Your task to perform on an android device: Search for flights from Boston to Sydney Image 0: 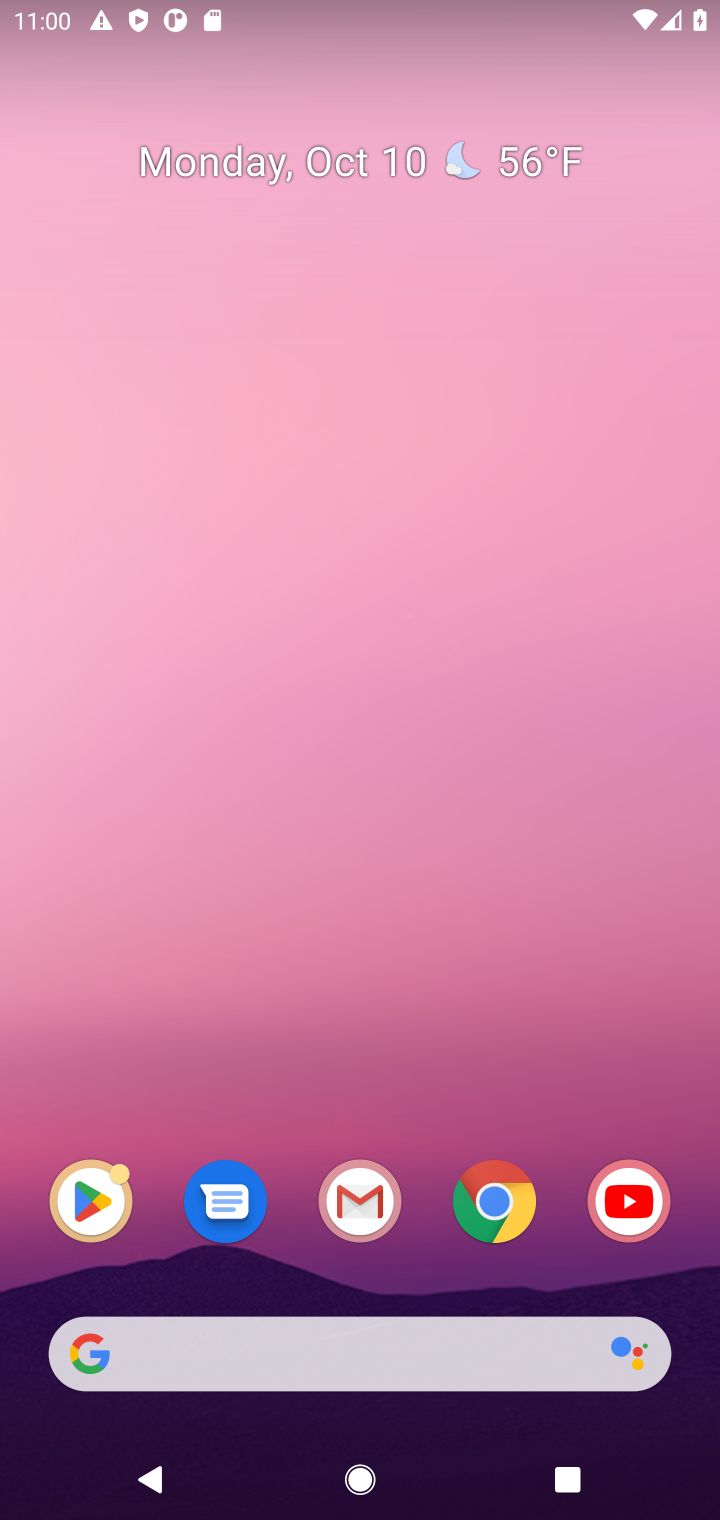
Step 0: click (75, 1343)
Your task to perform on an android device: Search for flights from Boston to Sydney Image 1: 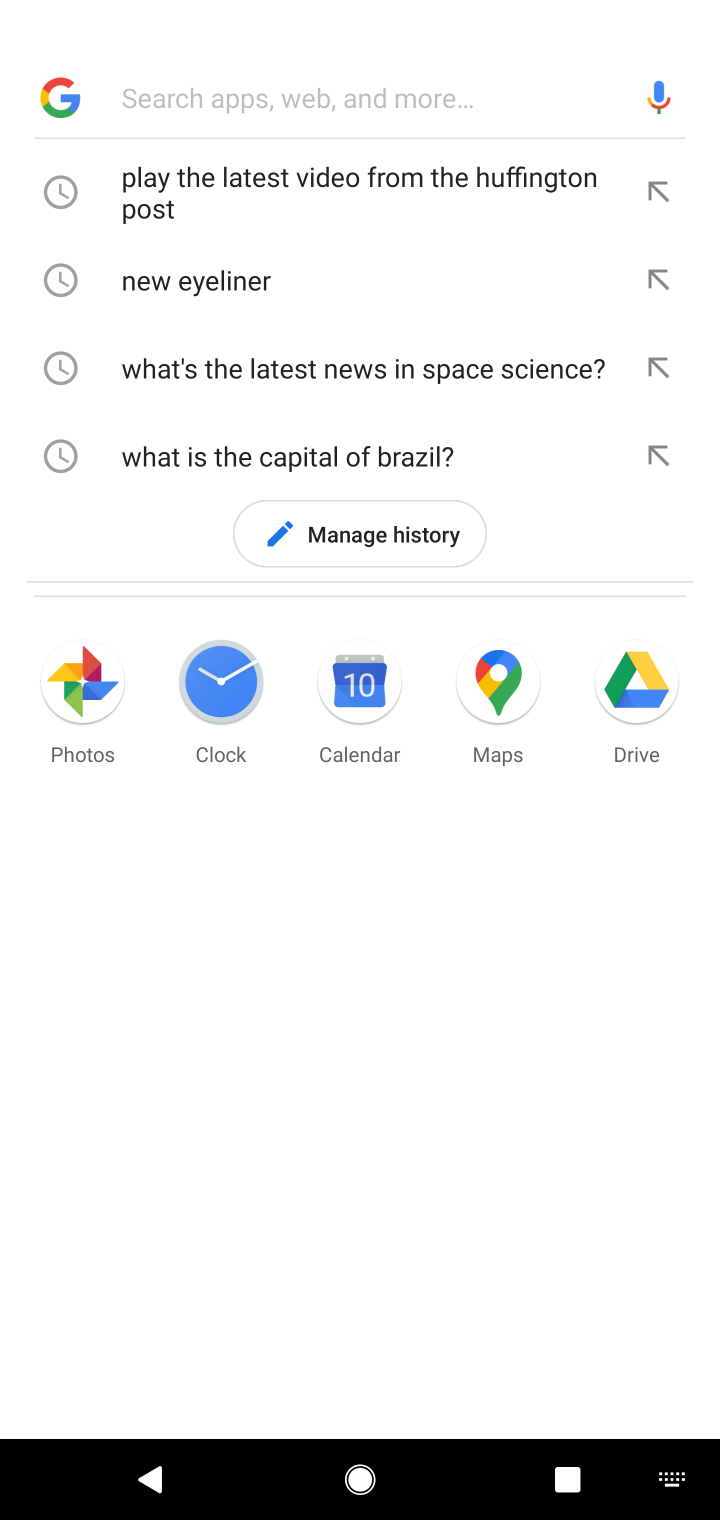
Step 1: click (330, 97)
Your task to perform on an android device: Search for flights from Boston to Sydney Image 2: 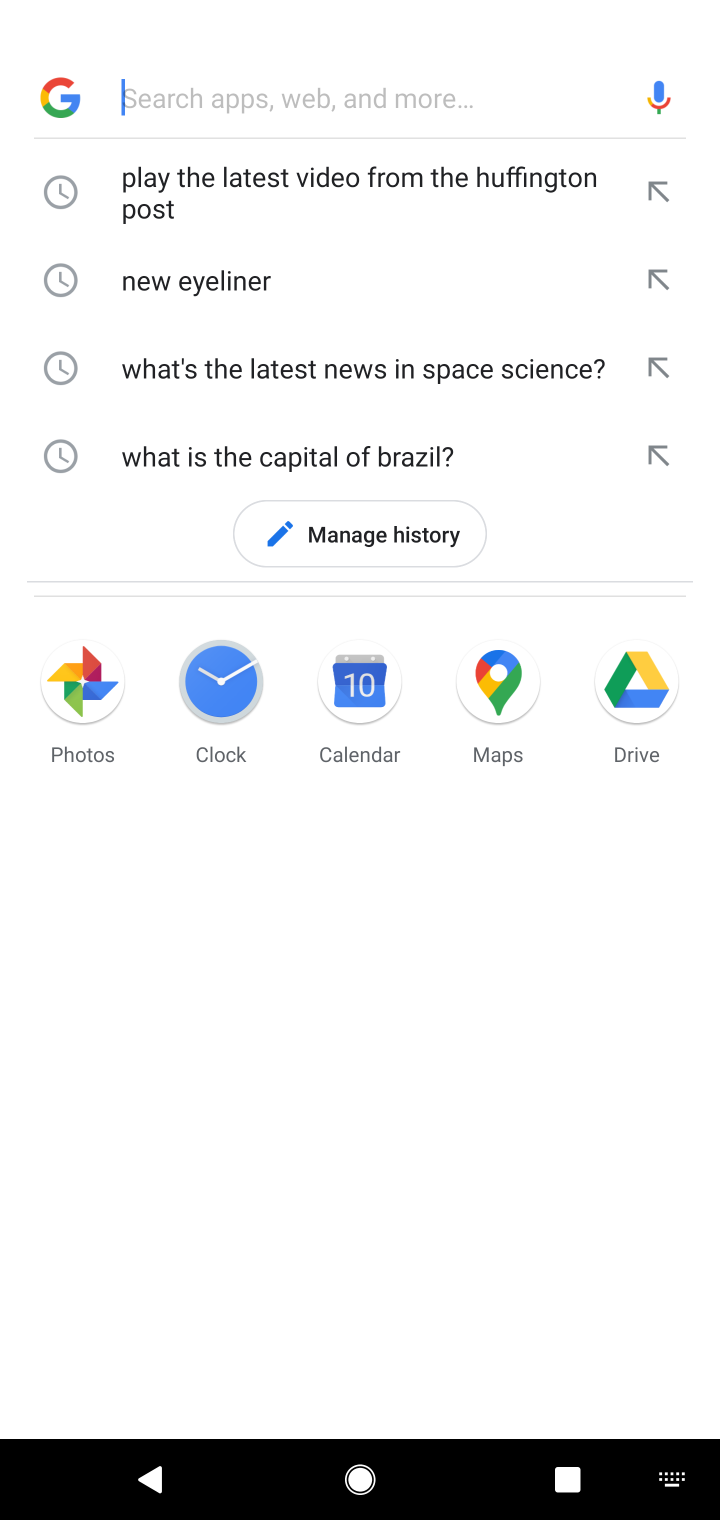
Step 2: type "Search for flights from Boston to Sydney"
Your task to perform on an android device: Search for flights from Boston to Sydney Image 3: 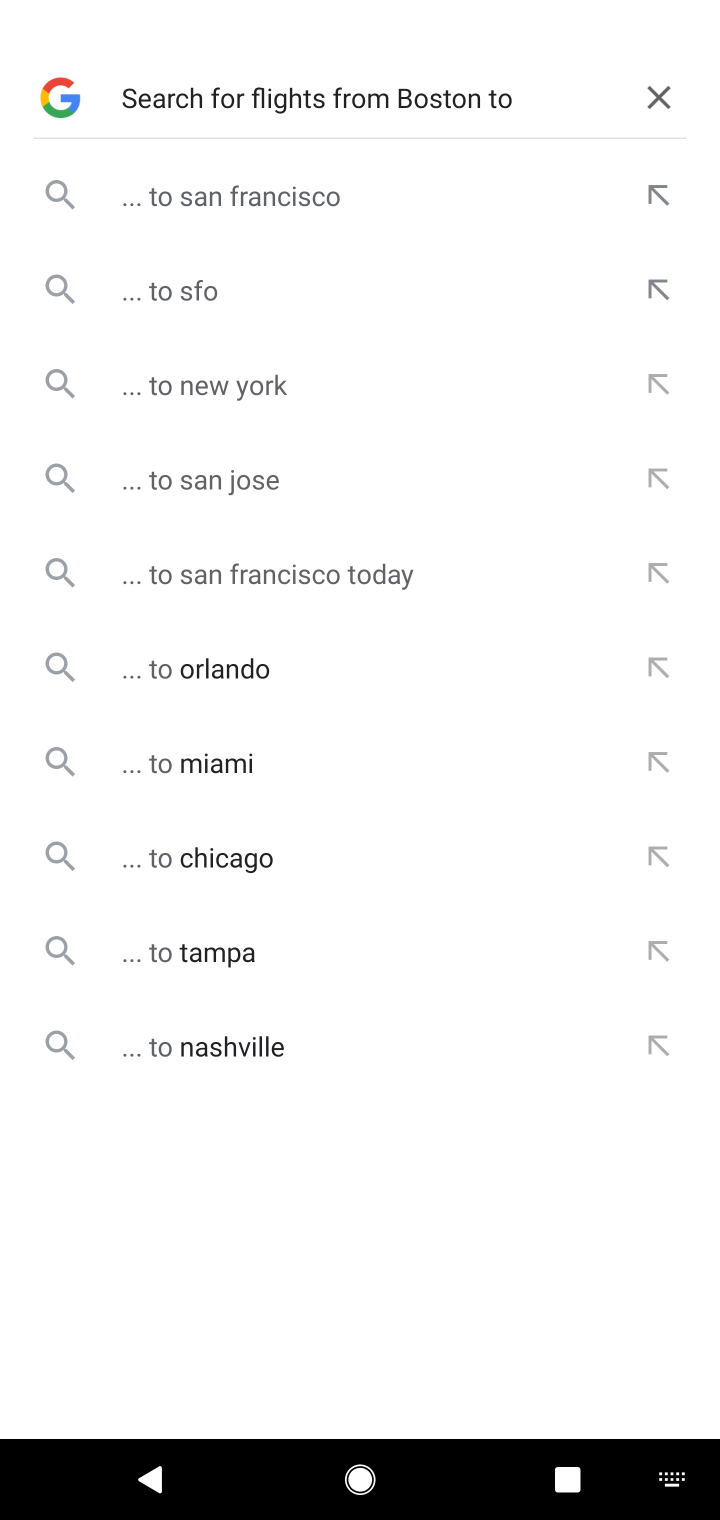
Step 3: task complete